Your task to perform on an android device: Open accessibility settings Image 0: 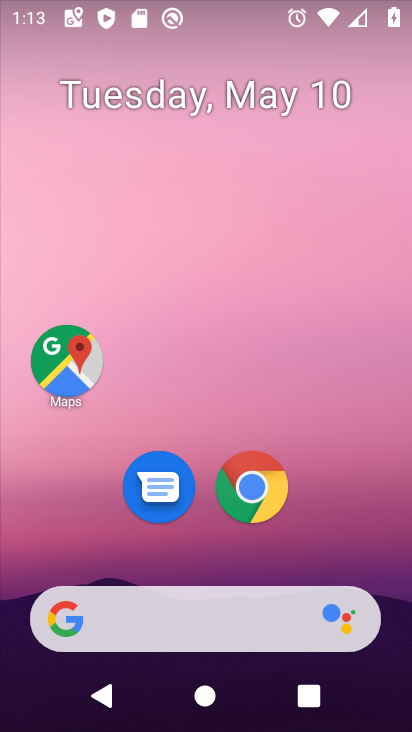
Step 0: drag from (273, 553) to (255, 6)
Your task to perform on an android device: Open accessibility settings Image 1: 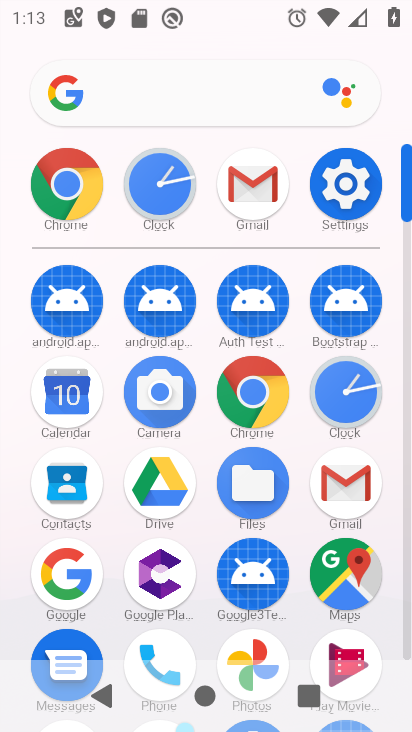
Step 1: click (312, 179)
Your task to perform on an android device: Open accessibility settings Image 2: 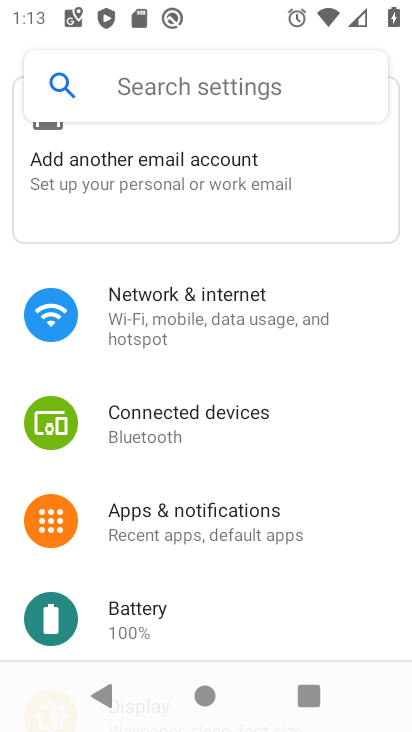
Step 2: drag from (193, 603) to (180, 33)
Your task to perform on an android device: Open accessibility settings Image 3: 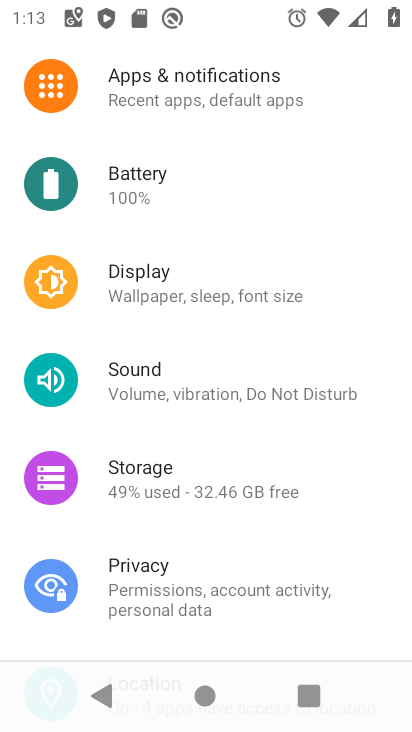
Step 3: drag from (226, 552) to (205, 309)
Your task to perform on an android device: Open accessibility settings Image 4: 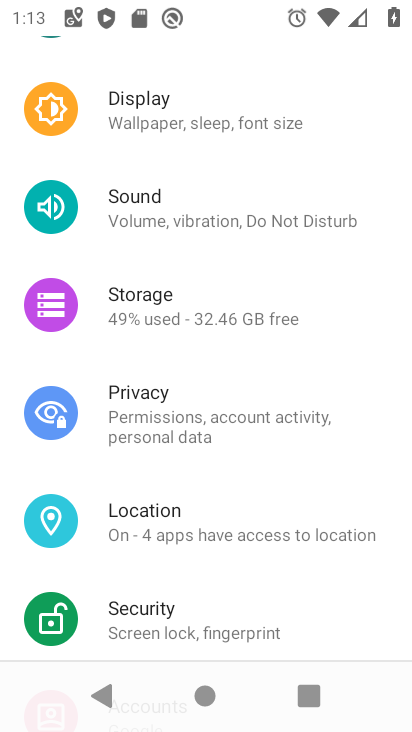
Step 4: click (169, 428)
Your task to perform on an android device: Open accessibility settings Image 5: 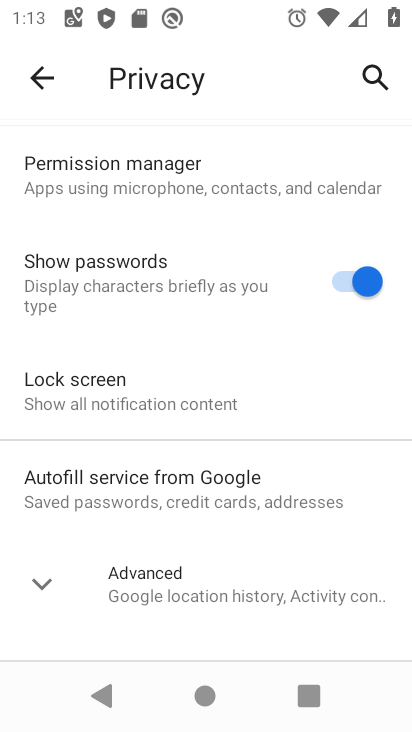
Step 5: task complete